Your task to perform on an android device: Turn on the flashlight Image 0: 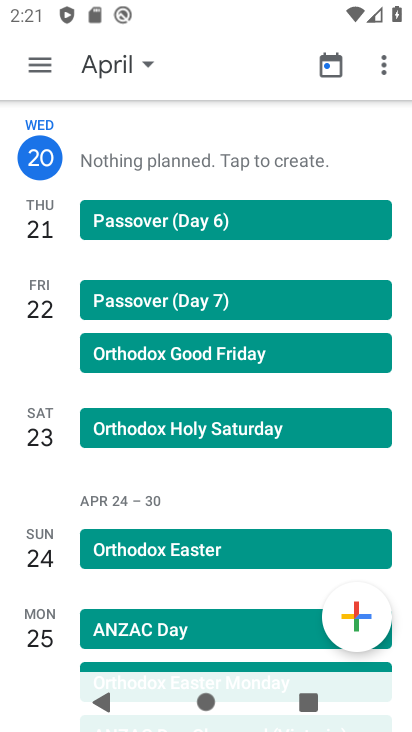
Step 0: press home button
Your task to perform on an android device: Turn on the flashlight Image 1: 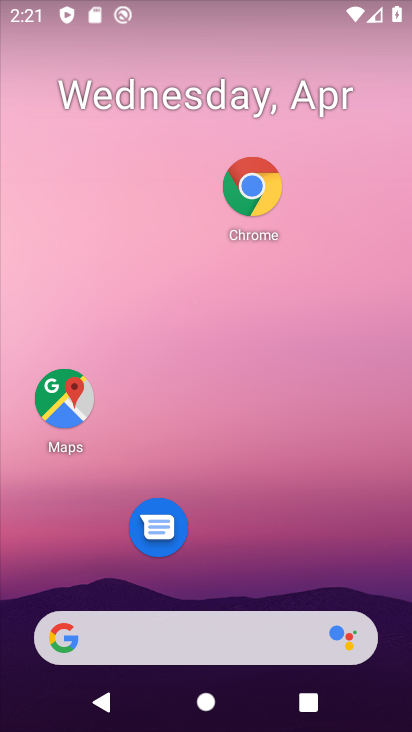
Step 1: task complete